Your task to perform on an android device: Go to ESPN.com Image 0: 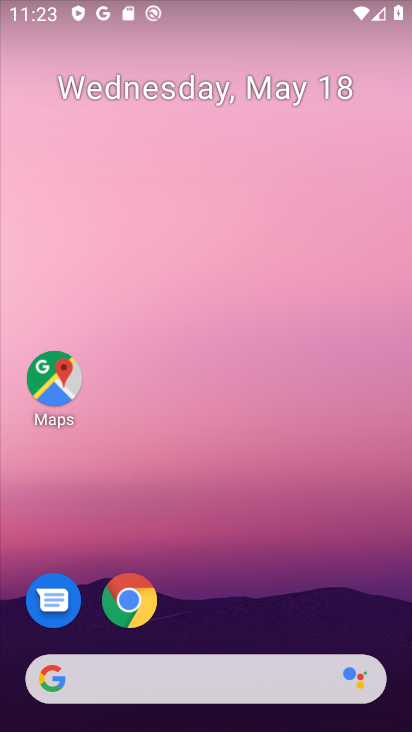
Step 0: click (127, 618)
Your task to perform on an android device: Go to ESPN.com Image 1: 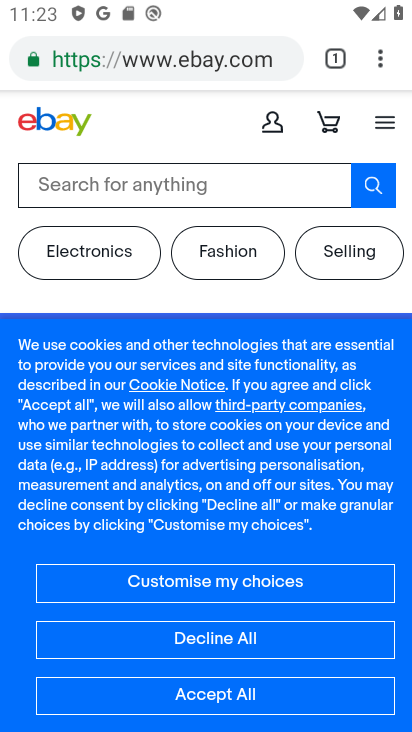
Step 1: click (178, 56)
Your task to perform on an android device: Go to ESPN.com Image 2: 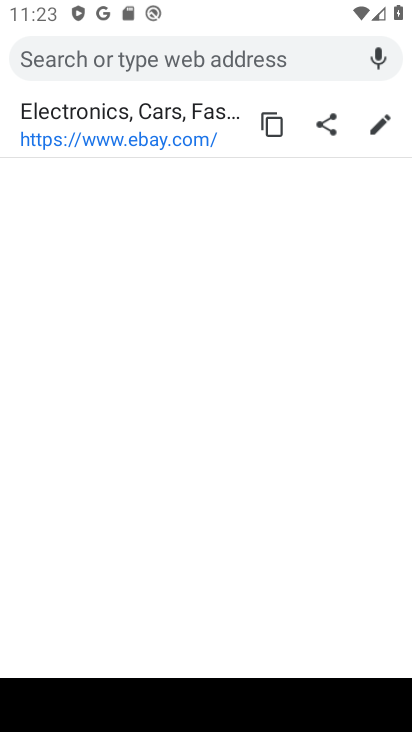
Step 2: type "ESPN.com"
Your task to perform on an android device: Go to ESPN.com Image 3: 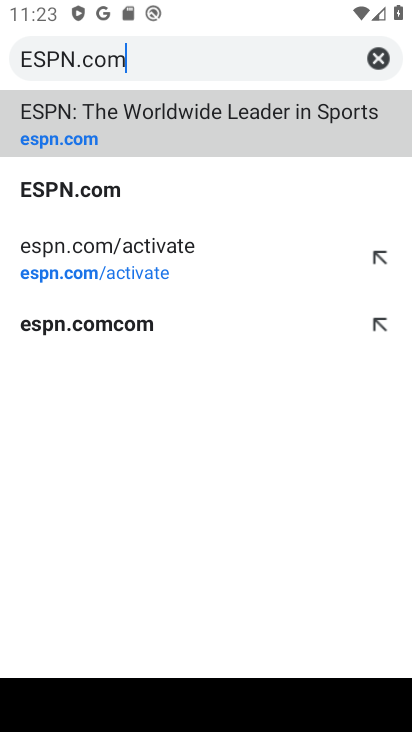
Step 3: click (84, 197)
Your task to perform on an android device: Go to ESPN.com Image 4: 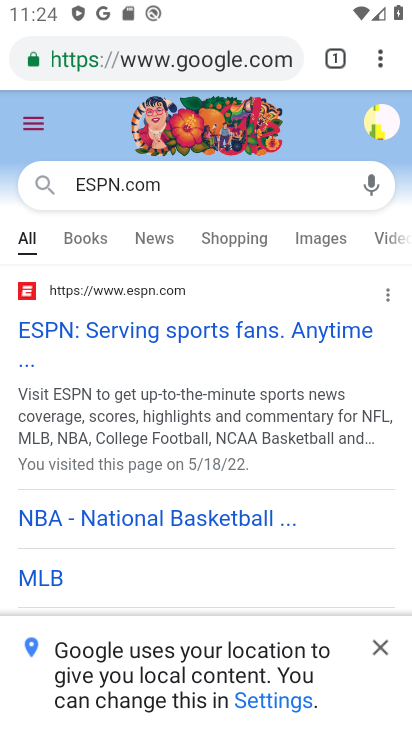
Step 4: task complete